Your task to perform on an android device: Open Youtube and go to the subscriptions tab Image 0: 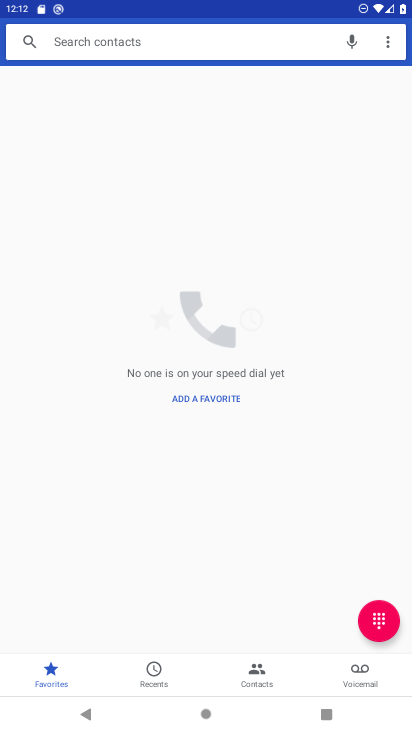
Step 0: press home button
Your task to perform on an android device: Open Youtube and go to the subscriptions tab Image 1: 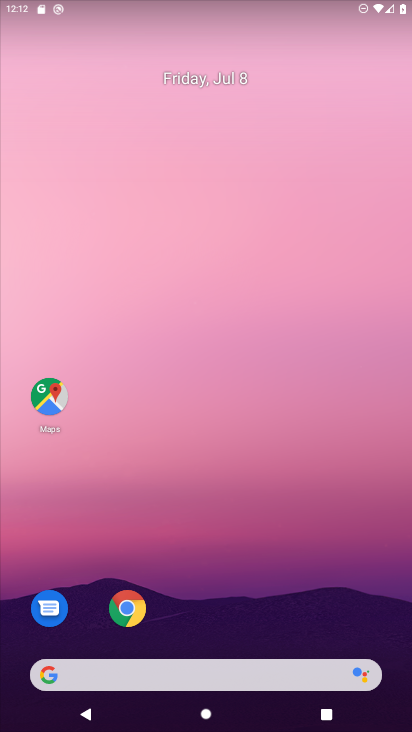
Step 1: drag from (240, 728) to (222, 613)
Your task to perform on an android device: Open Youtube and go to the subscriptions tab Image 2: 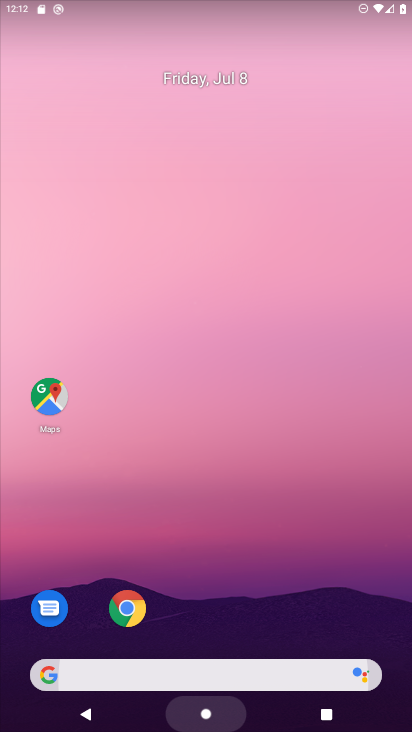
Step 2: drag from (218, 148) to (218, 109)
Your task to perform on an android device: Open Youtube and go to the subscriptions tab Image 3: 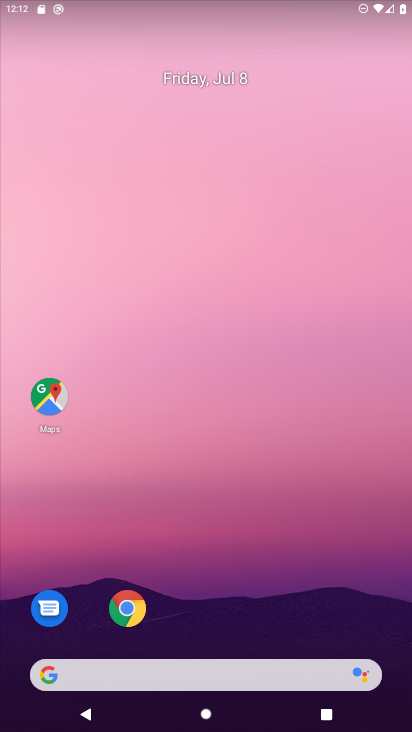
Step 3: drag from (262, 723) to (254, 660)
Your task to perform on an android device: Open Youtube and go to the subscriptions tab Image 4: 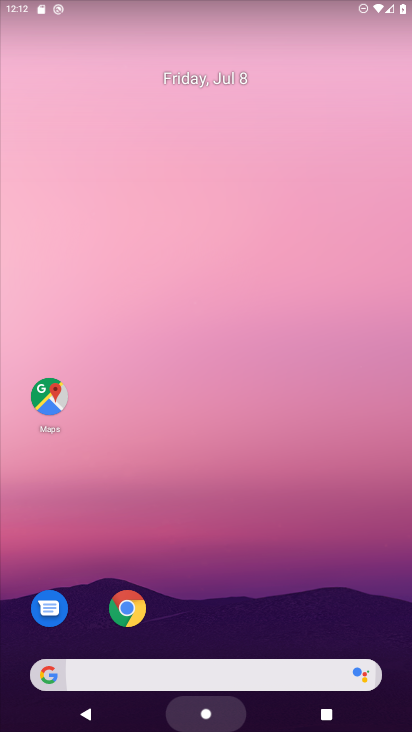
Step 4: drag from (239, 135) to (242, 33)
Your task to perform on an android device: Open Youtube and go to the subscriptions tab Image 5: 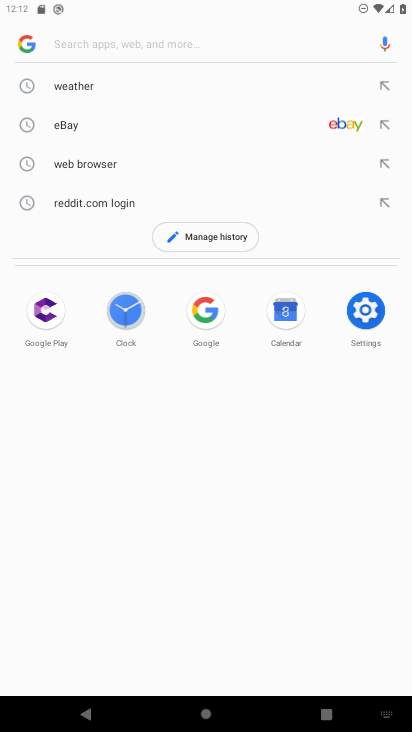
Step 5: press home button
Your task to perform on an android device: Open Youtube and go to the subscriptions tab Image 6: 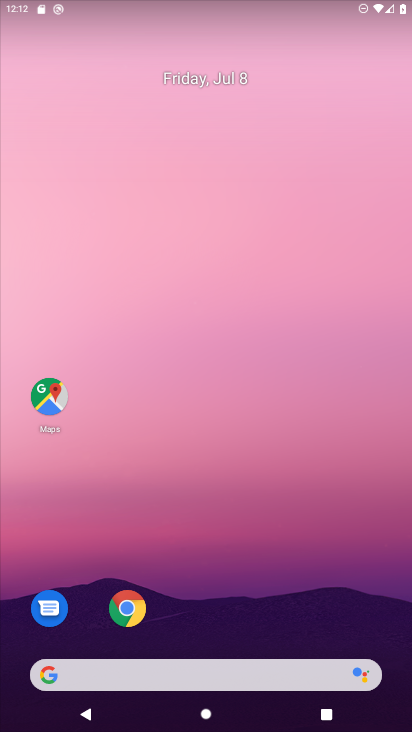
Step 6: drag from (239, 653) to (203, 91)
Your task to perform on an android device: Open Youtube and go to the subscriptions tab Image 7: 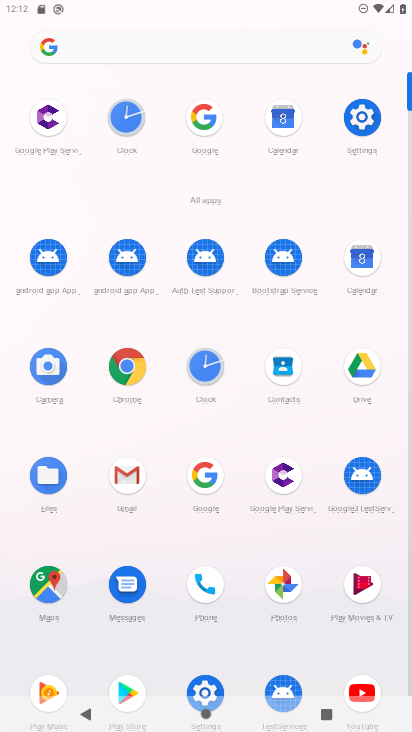
Step 7: click (359, 684)
Your task to perform on an android device: Open Youtube and go to the subscriptions tab Image 8: 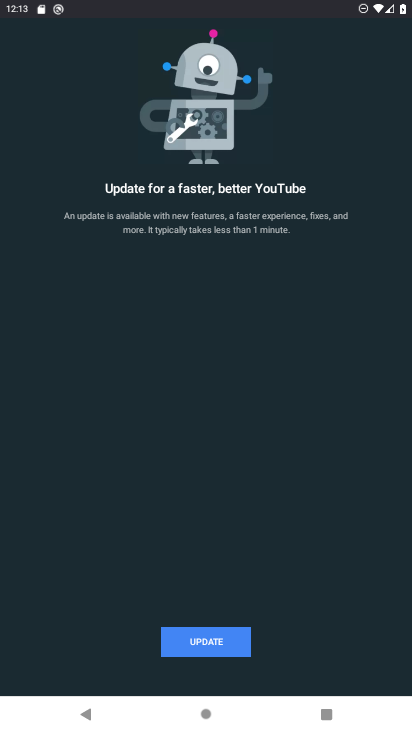
Step 8: task complete